Your task to perform on an android device: What is the news today? Image 0: 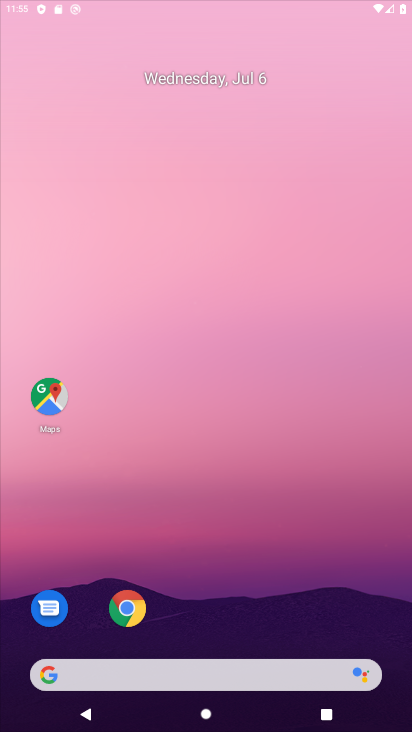
Step 0: drag from (147, 523) to (250, 11)
Your task to perform on an android device: What is the news today? Image 1: 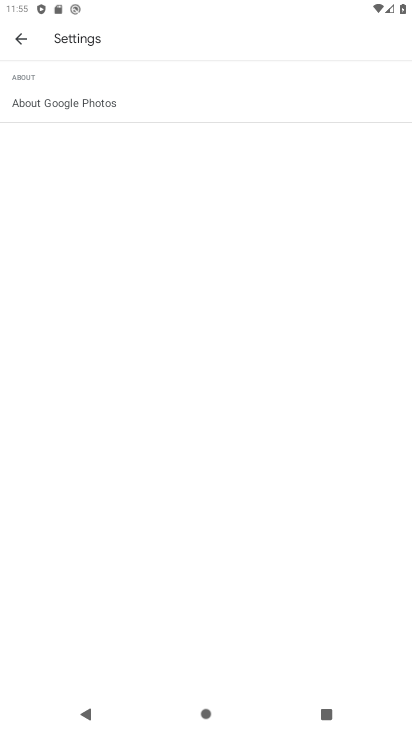
Step 1: press home button
Your task to perform on an android device: What is the news today? Image 2: 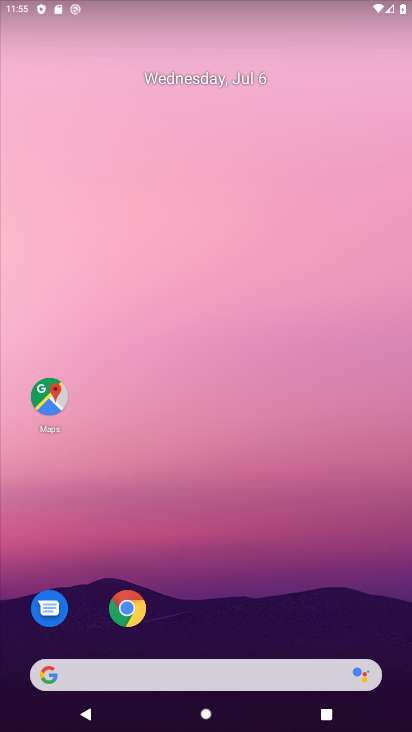
Step 2: drag from (10, 293) to (411, 289)
Your task to perform on an android device: What is the news today? Image 3: 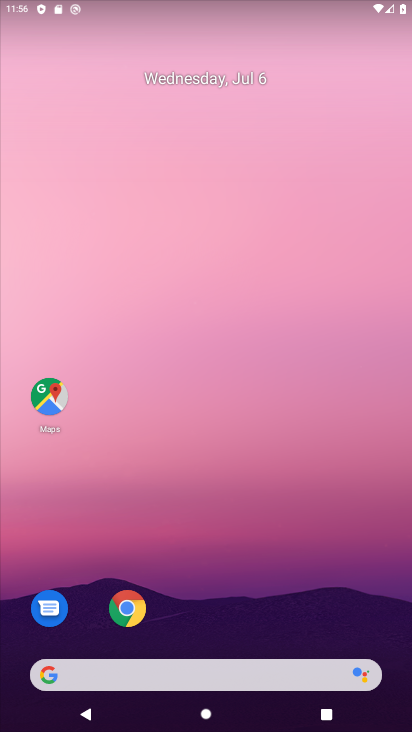
Step 3: drag from (27, 298) to (372, 267)
Your task to perform on an android device: What is the news today? Image 4: 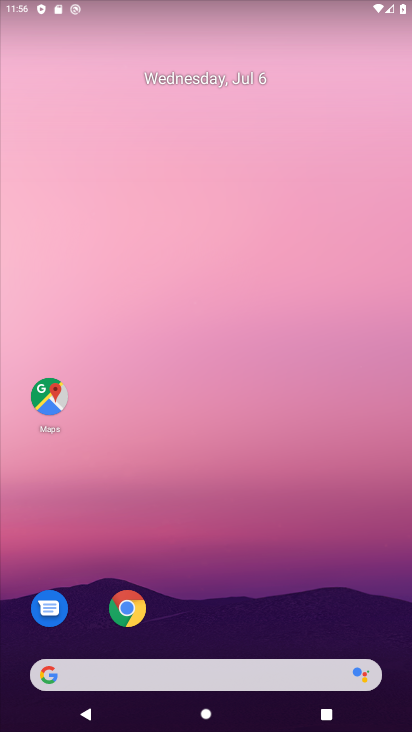
Step 4: drag from (3, 271) to (404, 269)
Your task to perform on an android device: What is the news today? Image 5: 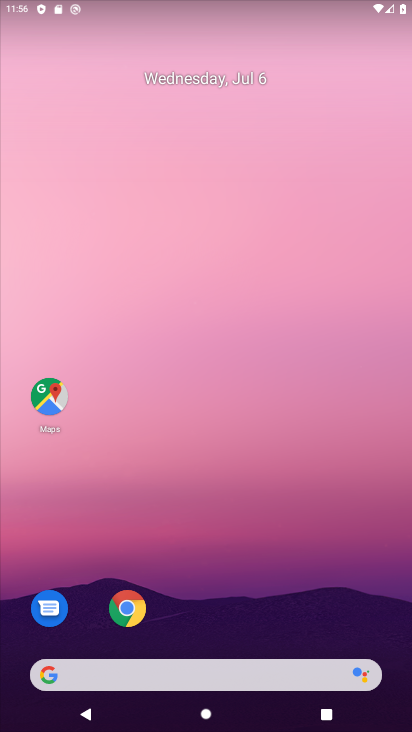
Step 5: drag from (160, 622) to (229, 73)
Your task to perform on an android device: What is the news today? Image 6: 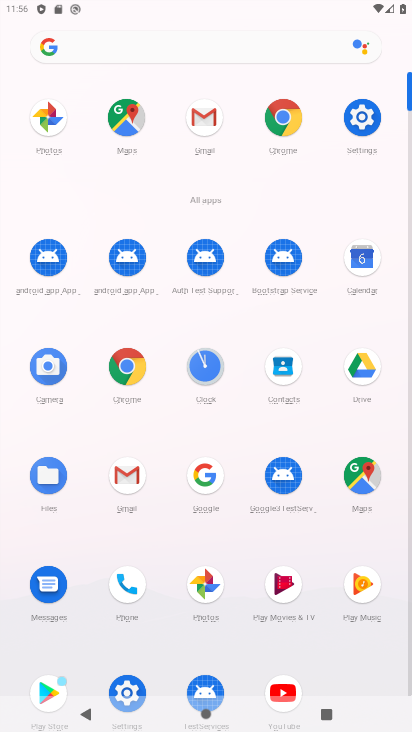
Step 6: click (124, 378)
Your task to perform on an android device: What is the news today? Image 7: 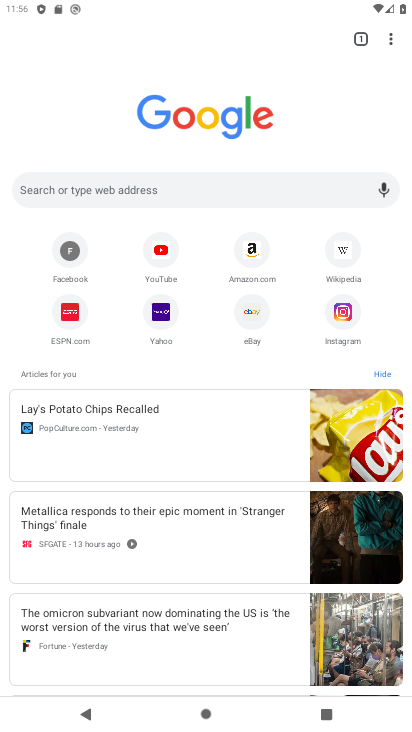
Step 7: task complete